Your task to perform on an android device: Open CNN.com Image 0: 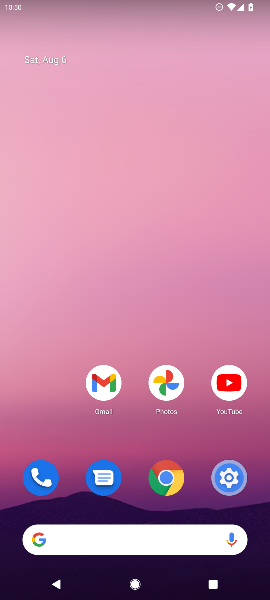
Step 0: click (171, 473)
Your task to perform on an android device: Open CNN.com Image 1: 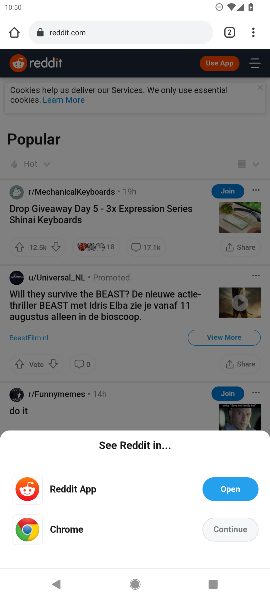
Step 1: drag from (252, 36) to (153, 95)
Your task to perform on an android device: Open CNN.com Image 2: 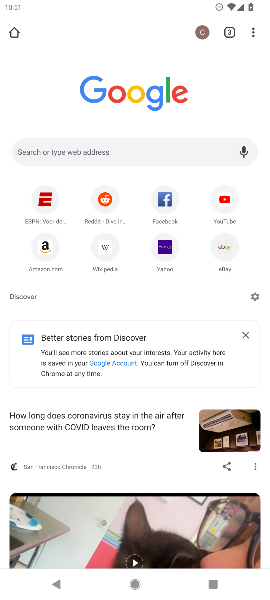
Step 2: click (51, 142)
Your task to perform on an android device: Open CNN.com Image 3: 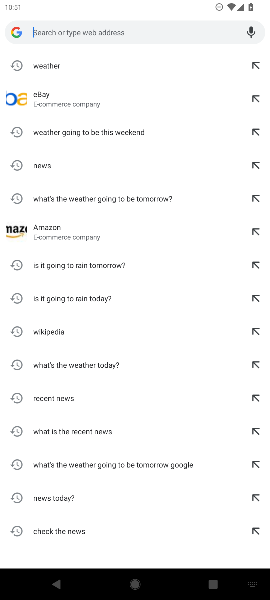
Step 3: type "Cnn"
Your task to perform on an android device: Open CNN.com Image 4: 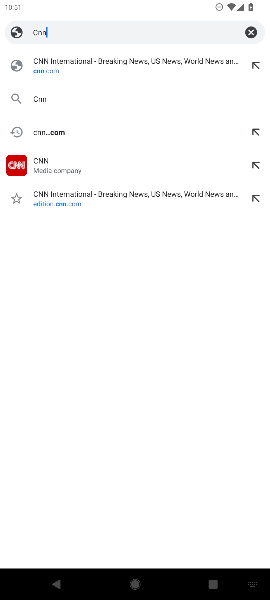
Step 4: type ".com"
Your task to perform on an android device: Open CNN.com Image 5: 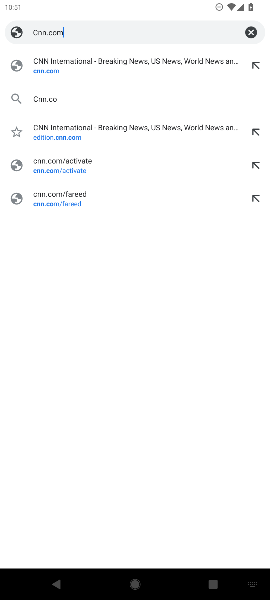
Step 5: type ""
Your task to perform on an android device: Open CNN.com Image 6: 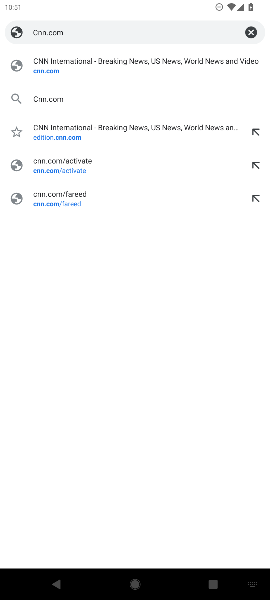
Step 6: click (85, 60)
Your task to perform on an android device: Open CNN.com Image 7: 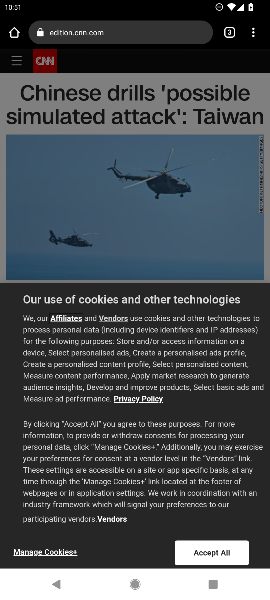
Step 7: task complete